Your task to perform on an android device: Open Maps and search for coffee Image 0: 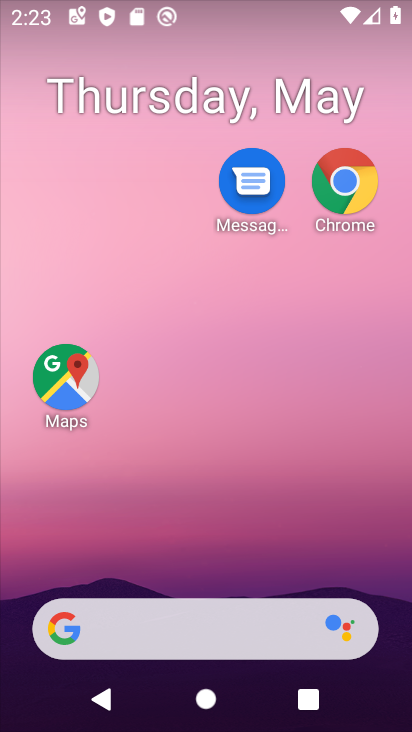
Step 0: drag from (248, 625) to (278, 14)
Your task to perform on an android device: Open Maps and search for coffee Image 1: 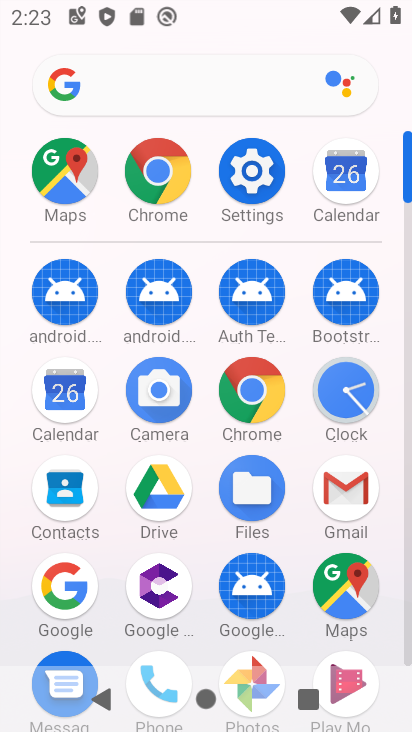
Step 1: click (372, 600)
Your task to perform on an android device: Open Maps and search for coffee Image 2: 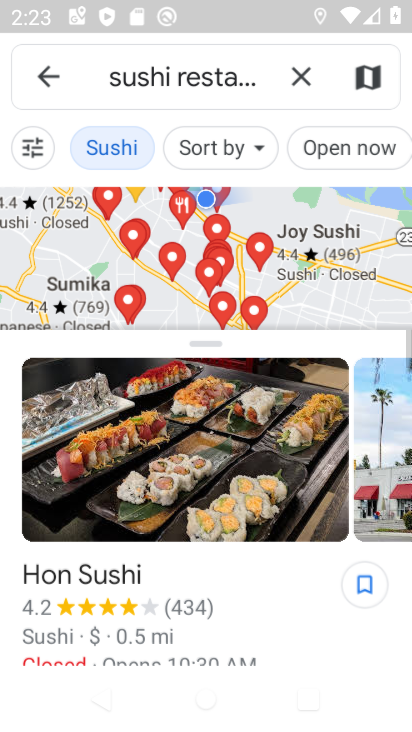
Step 2: click (309, 82)
Your task to perform on an android device: Open Maps and search for coffee Image 3: 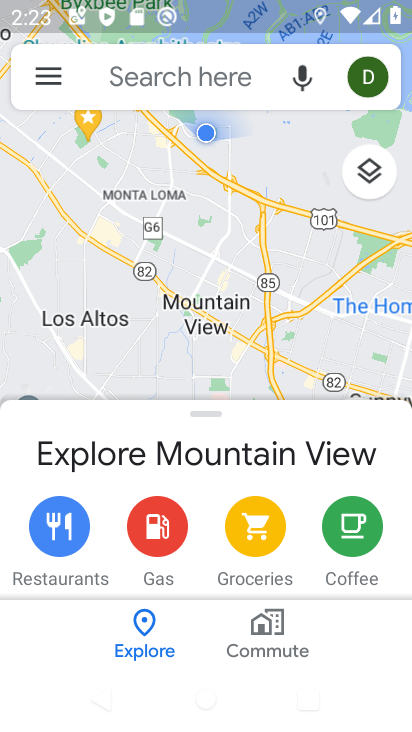
Step 3: click (212, 81)
Your task to perform on an android device: Open Maps and search for coffee Image 4: 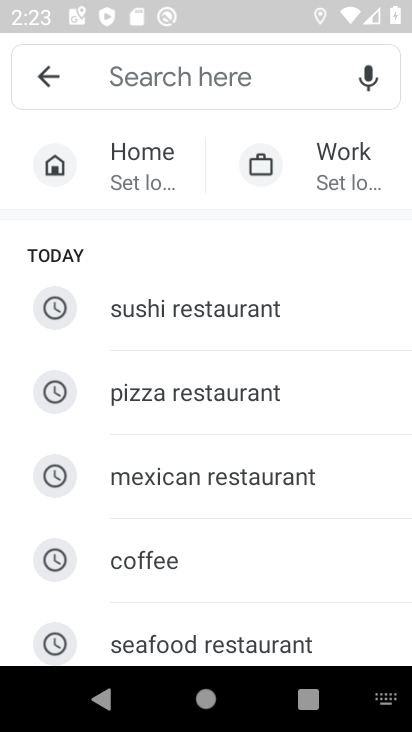
Step 4: click (205, 570)
Your task to perform on an android device: Open Maps and search for coffee Image 5: 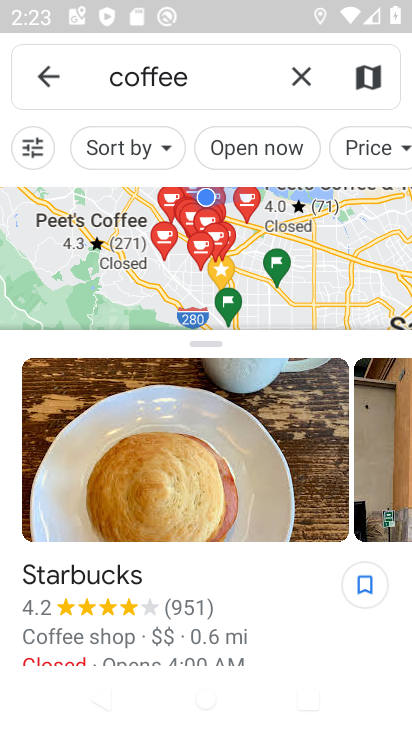
Step 5: task complete